Your task to perform on an android device: turn on improve location accuracy Image 0: 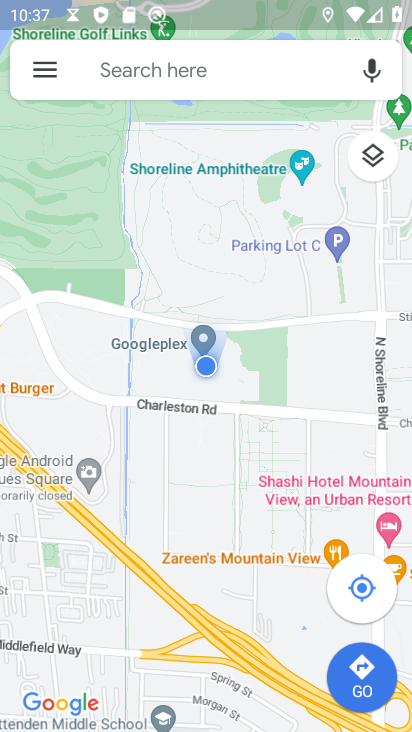
Step 0: click (47, 63)
Your task to perform on an android device: turn on improve location accuracy Image 1: 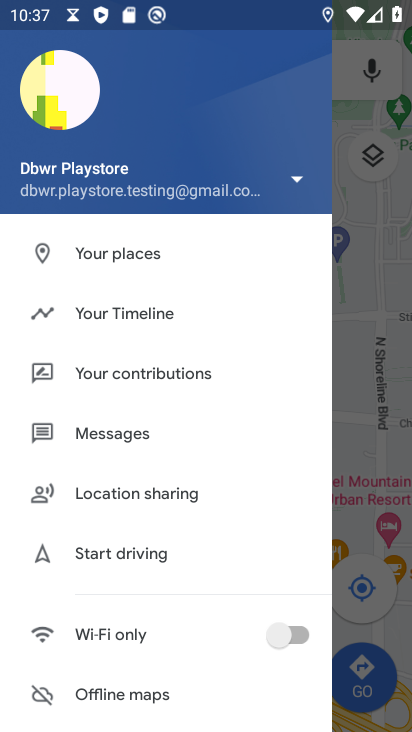
Step 1: drag from (163, 597) to (181, 160)
Your task to perform on an android device: turn on improve location accuracy Image 2: 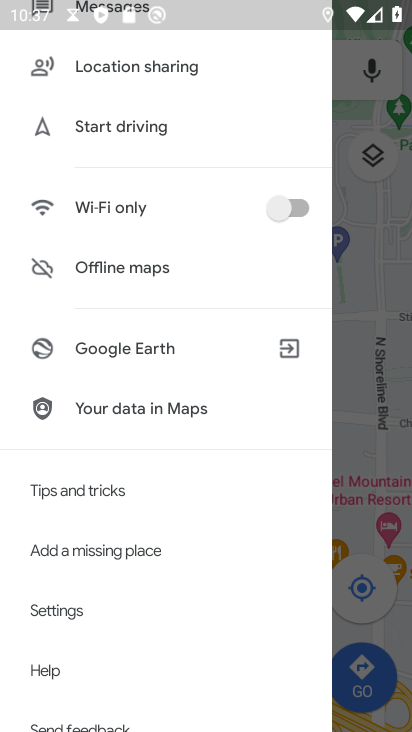
Step 2: click (73, 610)
Your task to perform on an android device: turn on improve location accuracy Image 3: 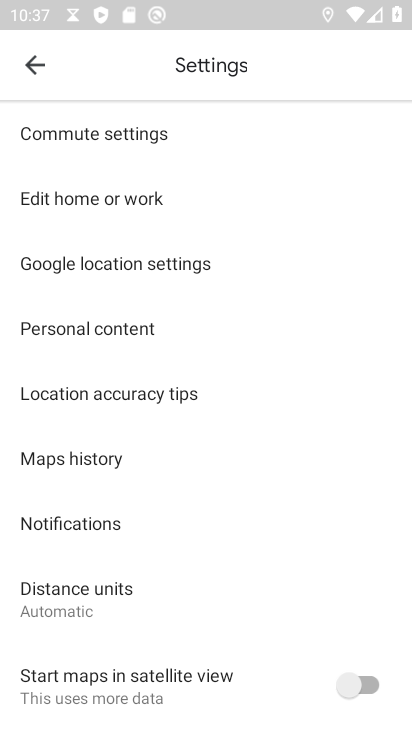
Step 3: click (172, 260)
Your task to perform on an android device: turn on improve location accuracy Image 4: 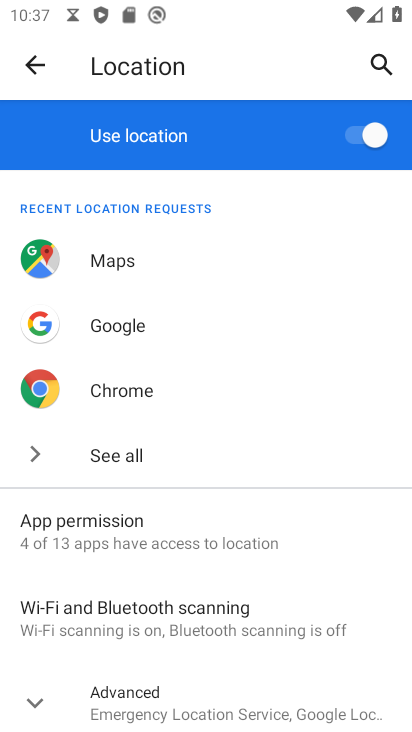
Step 4: click (231, 182)
Your task to perform on an android device: turn on improve location accuracy Image 5: 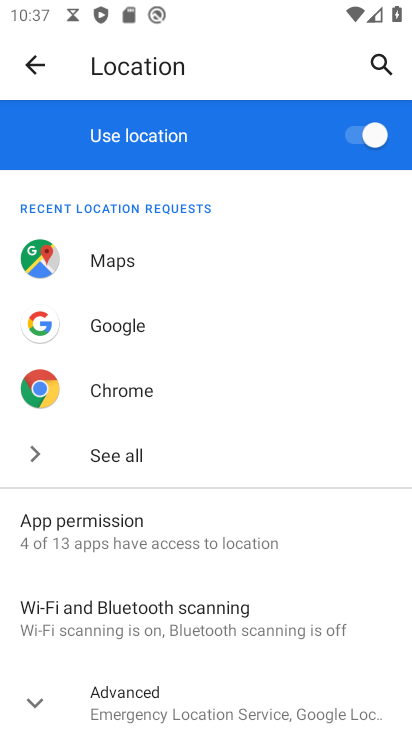
Step 5: click (39, 683)
Your task to perform on an android device: turn on improve location accuracy Image 6: 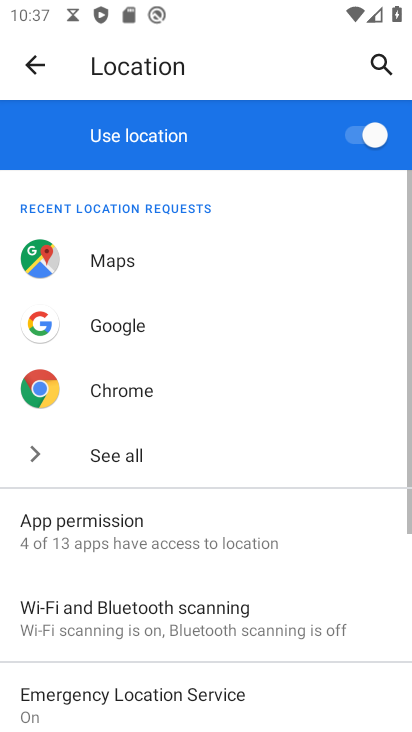
Step 6: drag from (216, 661) to (257, 275)
Your task to perform on an android device: turn on improve location accuracy Image 7: 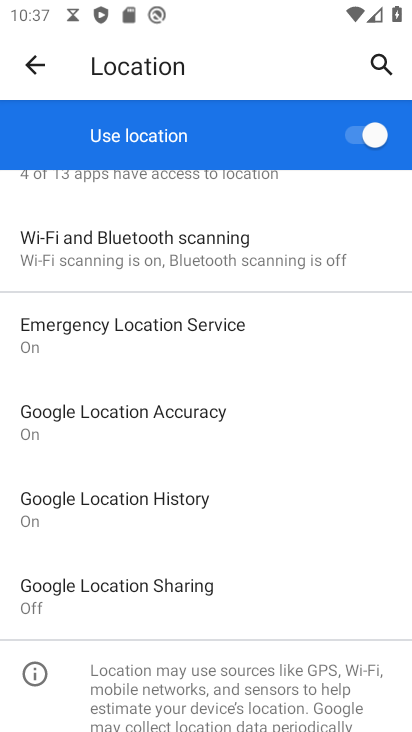
Step 7: drag from (253, 610) to (289, 268)
Your task to perform on an android device: turn on improve location accuracy Image 8: 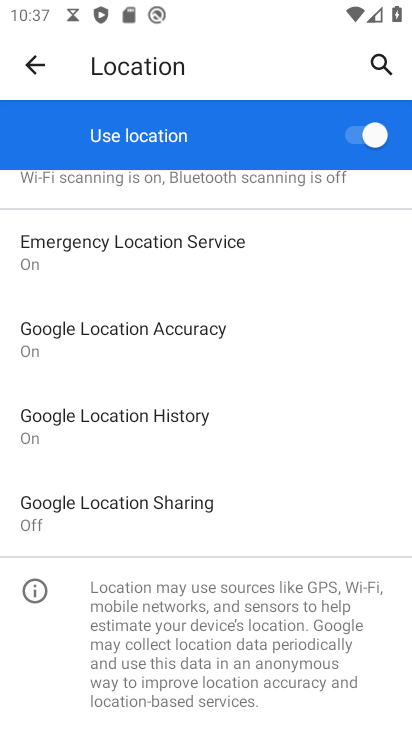
Step 8: click (182, 338)
Your task to perform on an android device: turn on improve location accuracy Image 9: 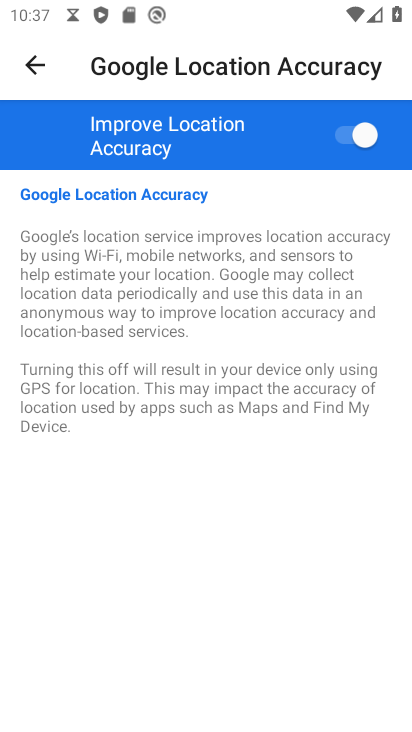
Step 9: task complete